Your task to perform on an android device: Do I have any events this weekend? Image 0: 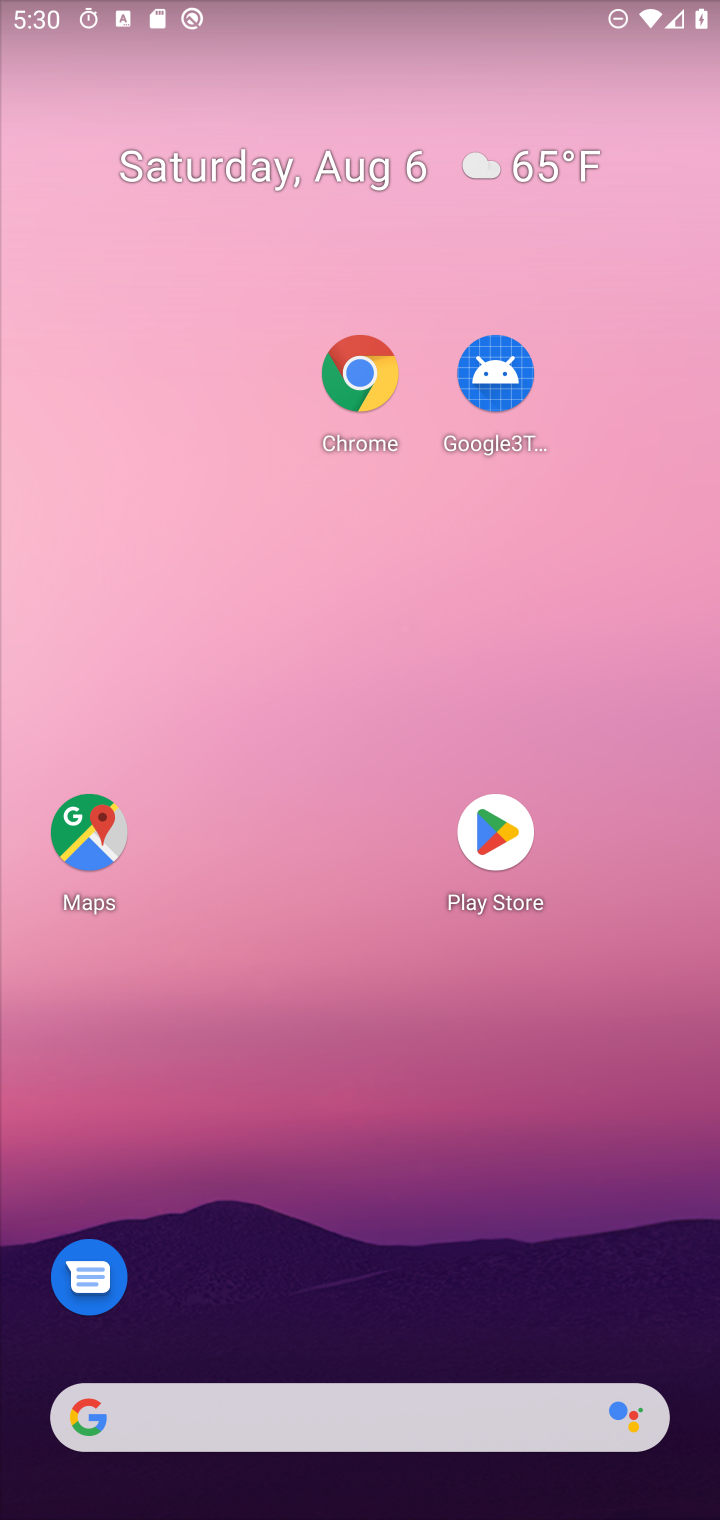
Step 0: drag from (353, 1408) to (485, 9)
Your task to perform on an android device: Do I have any events this weekend? Image 1: 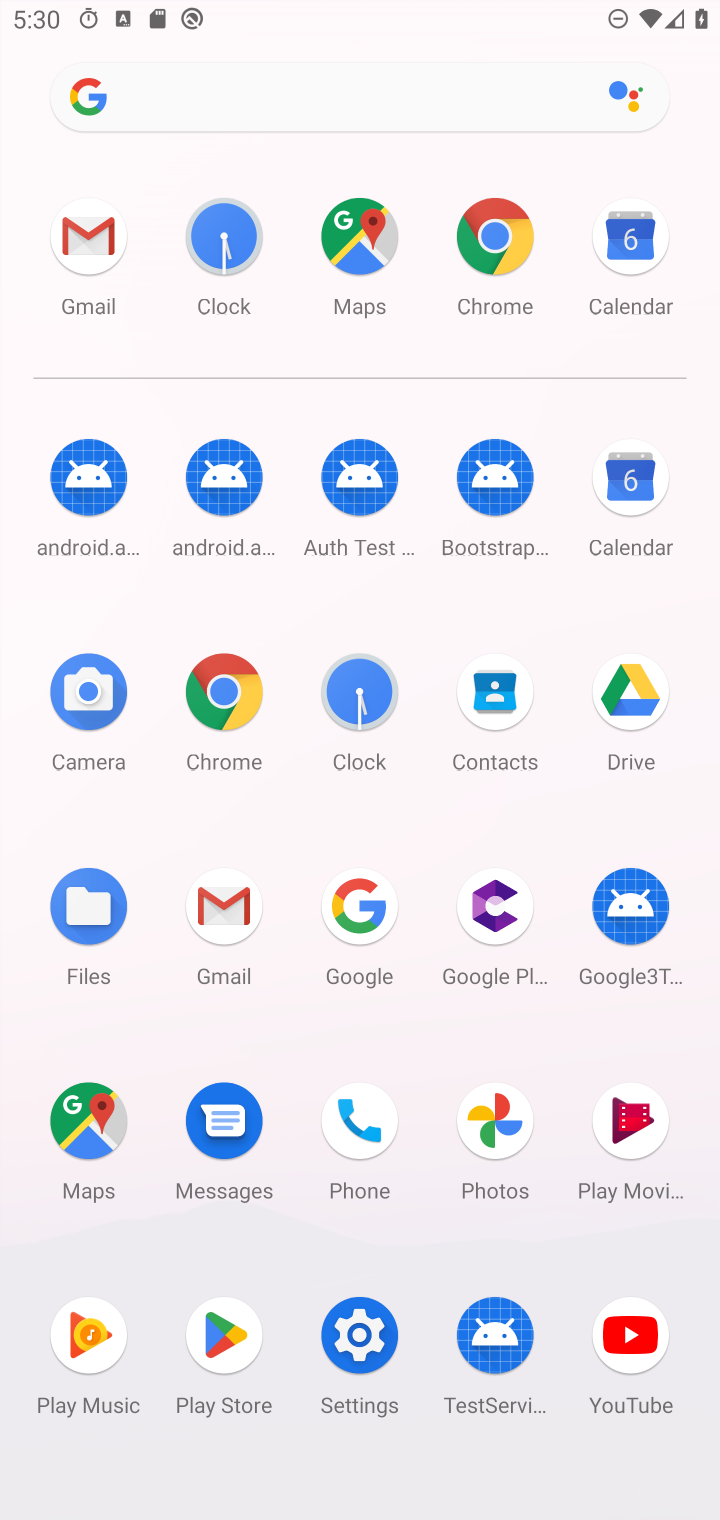
Step 1: click (639, 472)
Your task to perform on an android device: Do I have any events this weekend? Image 2: 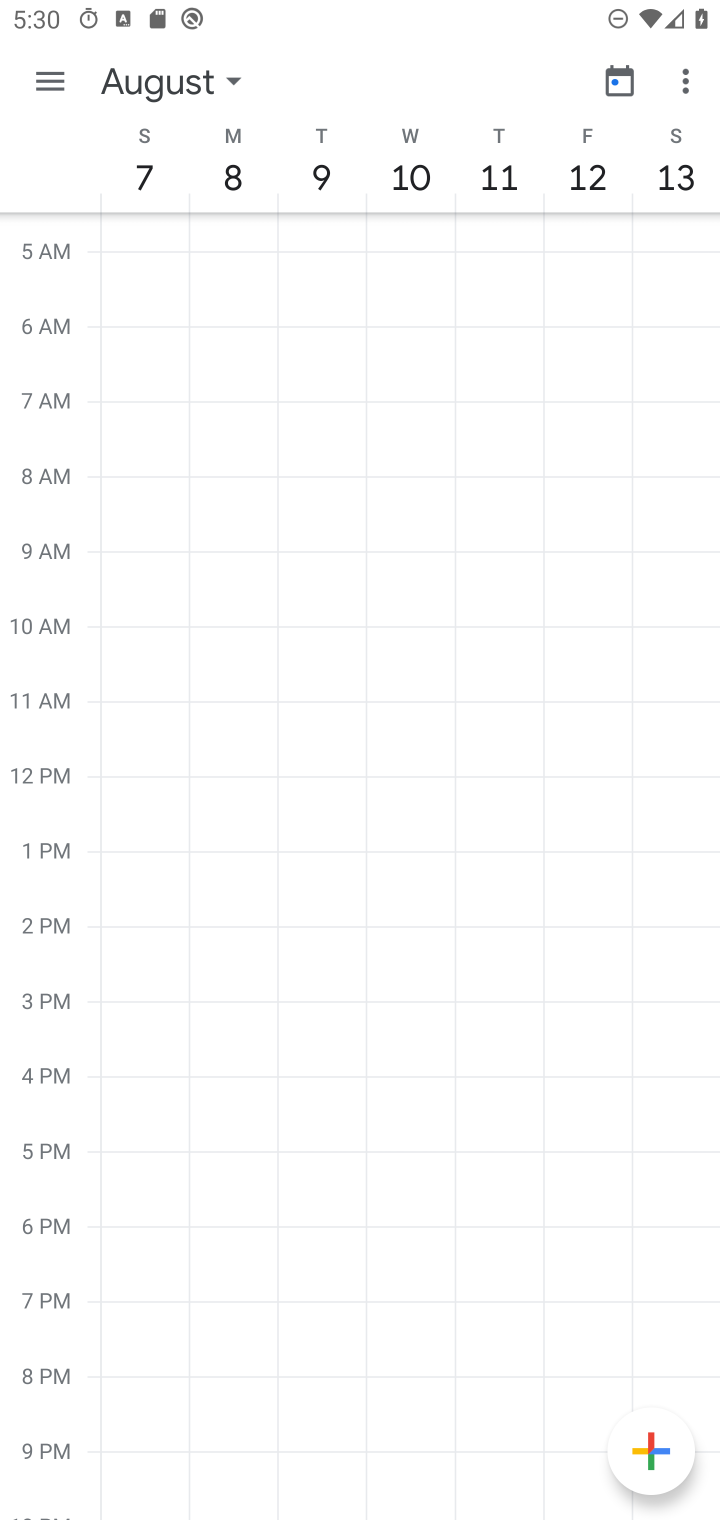
Step 2: click (233, 73)
Your task to perform on an android device: Do I have any events this weekend? Image 3: 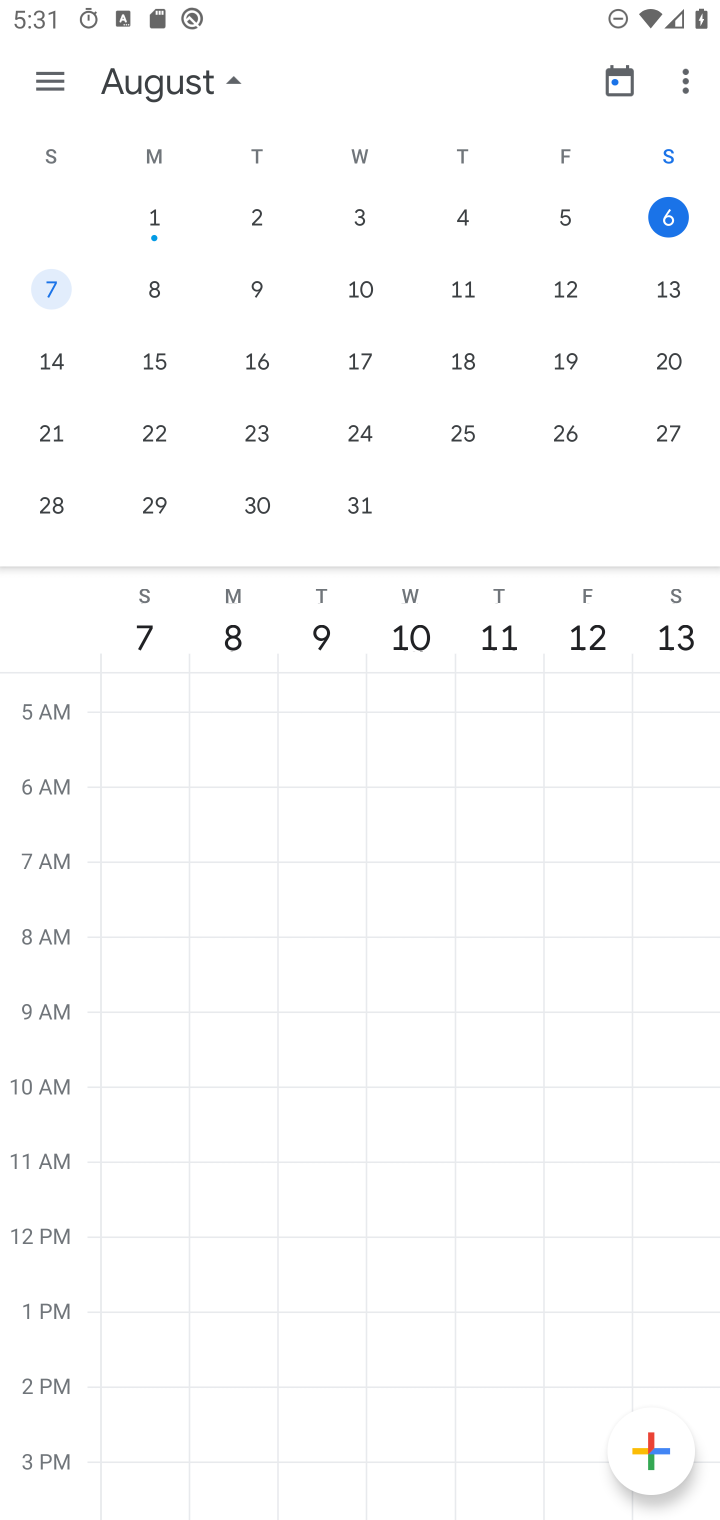
Step 3: click (458, 286)
Your task to perform on an android device: Do I have any events this weekend? Image 4: 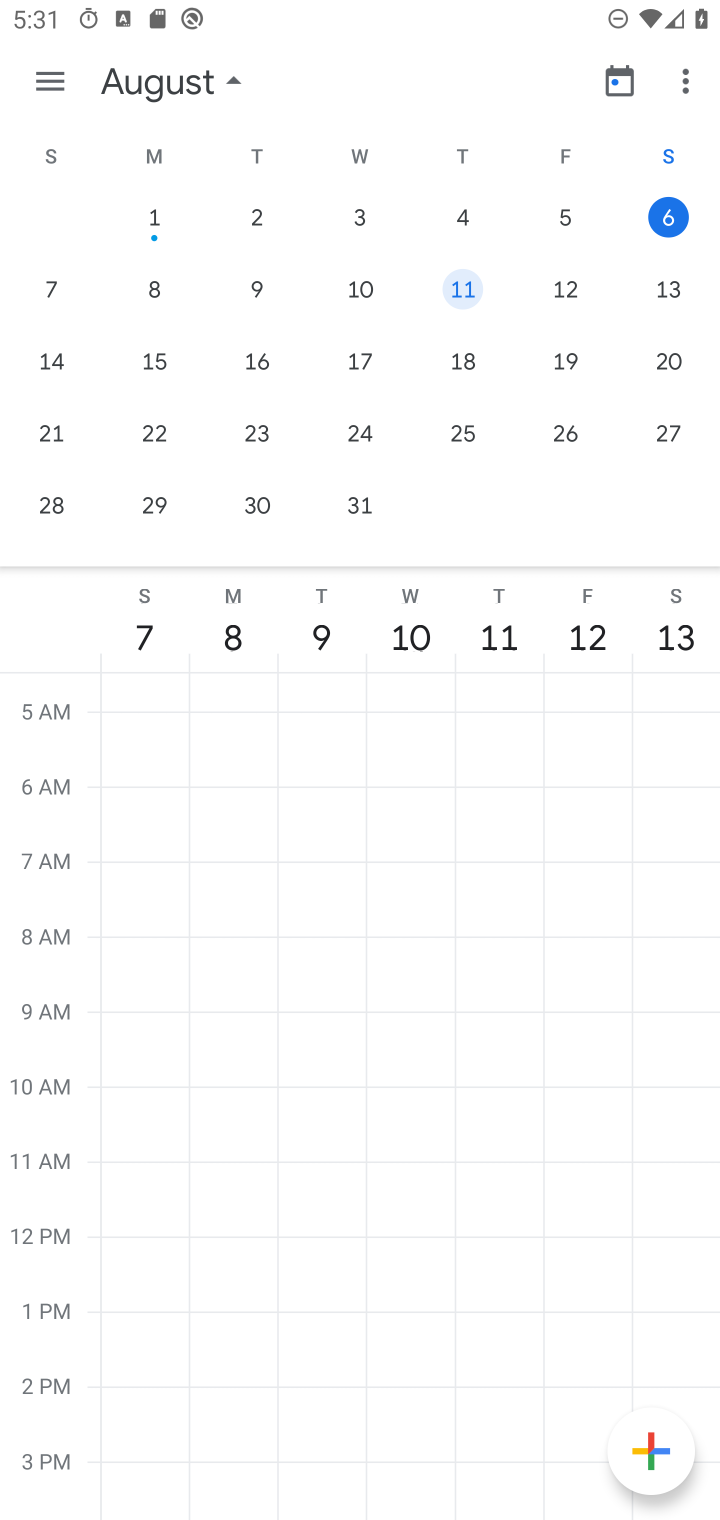
Step 4: click (663, 228)
Your task to perform on an android device: Do I have any events this weekend? Image 5: 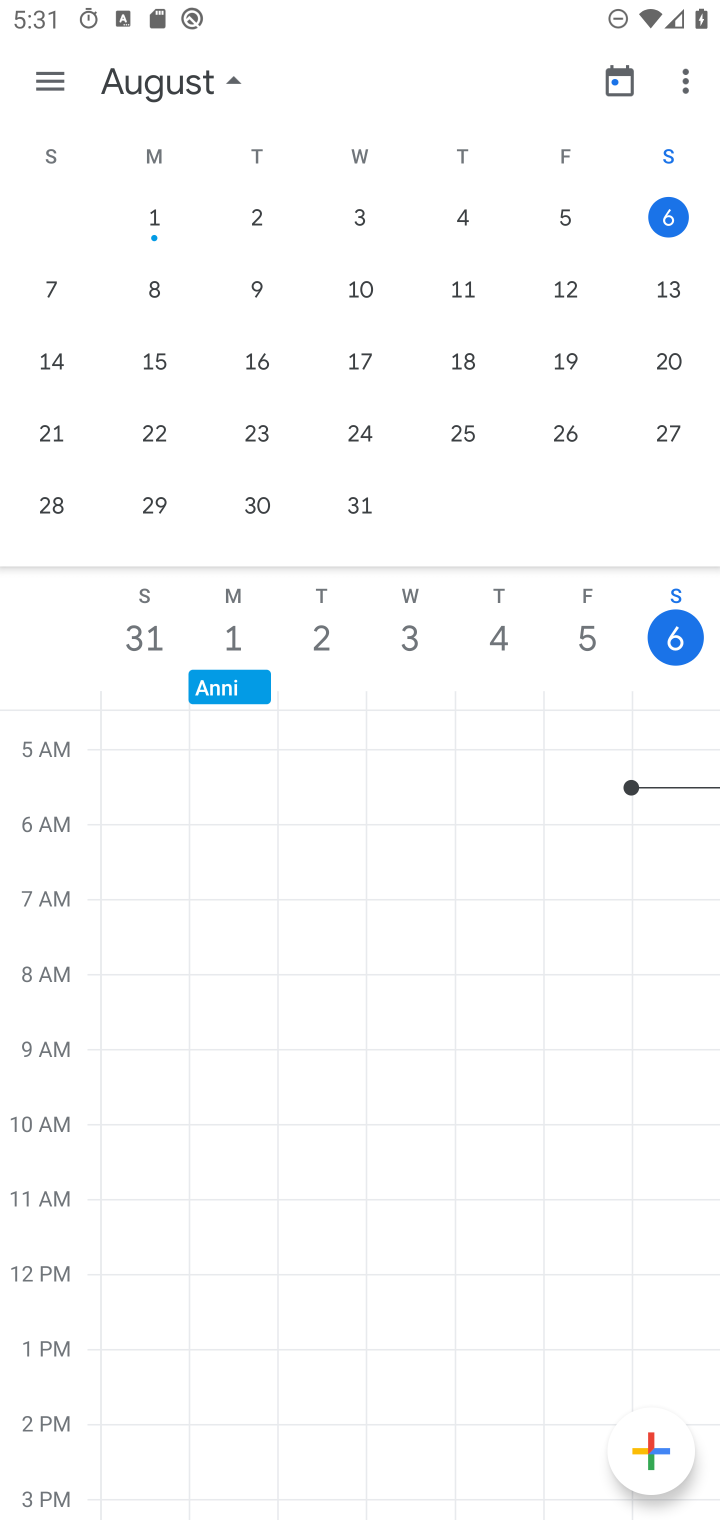
Step 5: task complete